Your task to perform on an android device: change the clock style Image 0: 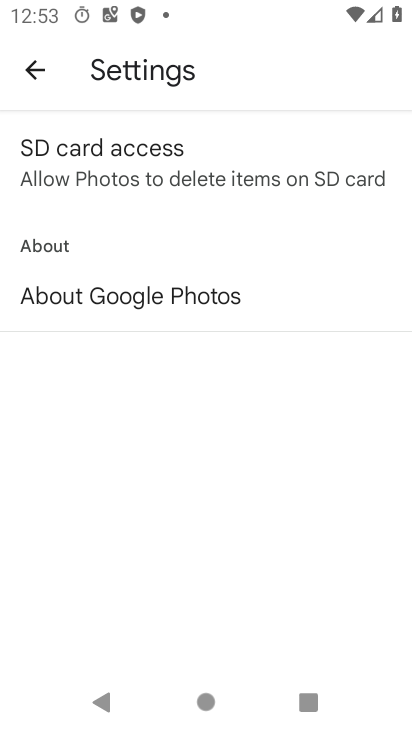
Step 0: press home button
Your task to perform on an android device: change the clock style Image 1: 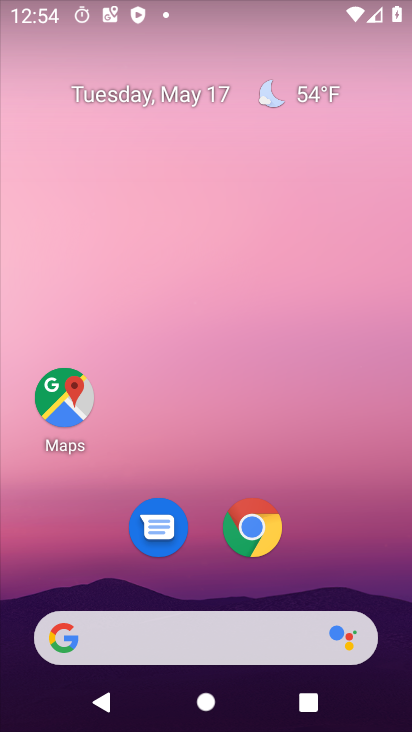
Step 1: drag from (239, 673) to (166, 147)
Your task to perform on an android device: change the clock style Image 2: 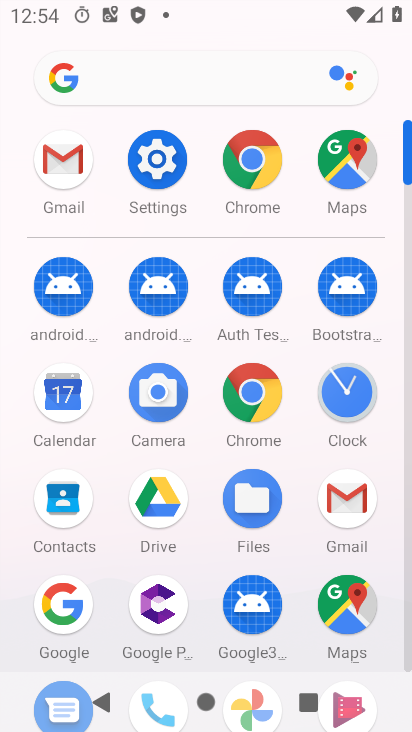
Step 2: click (151, 159)
Your task to perform on an android device: change the clock style Image 3: 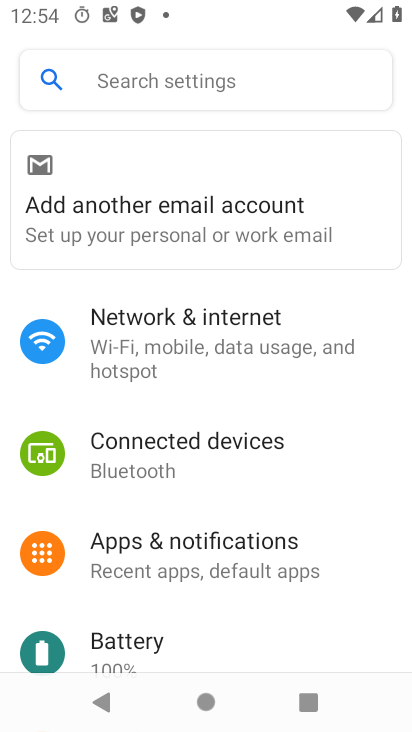
Step 3: press home button
Your task to perform on an android device: change the clock style Image 4: 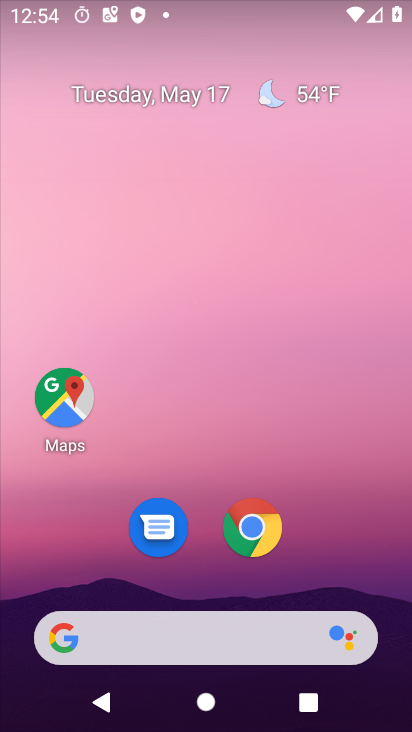
Step 4: drag from (317, 661) to (328, 191)
Your task to perform on an android device: change the clock style Image 5: 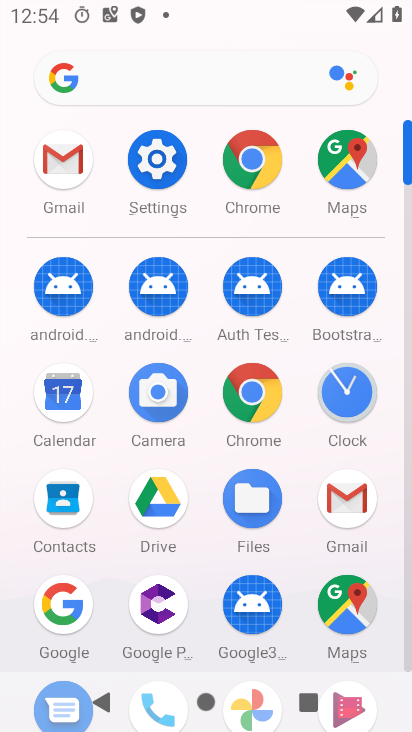
Step 5: click (361, 392)
Your task to perform on an android device: change the clock style Image 6: 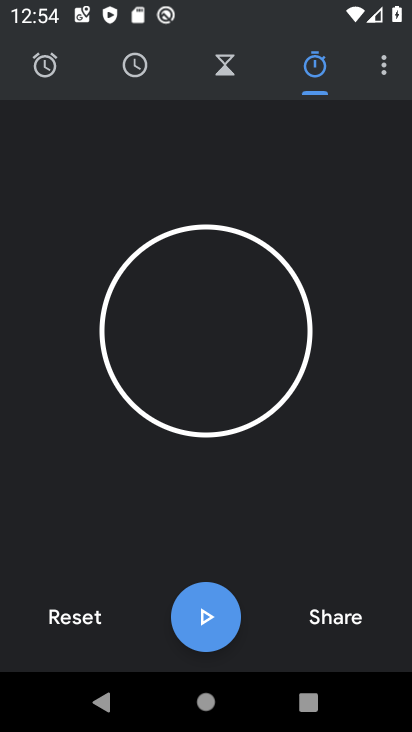
Step 6: click (382, 87)
Your task to perform on an android device: change the clock style Image 7: 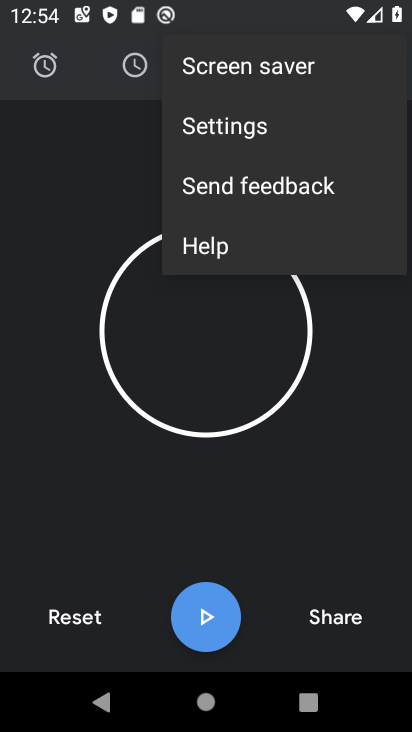
Step 7: click (250, 132)
Your task to perform on an android device: change the clock style Image 8: 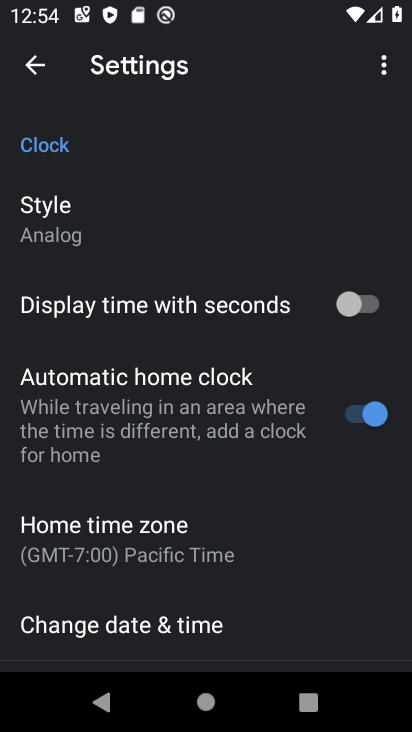
Step 8: click (167, 213)
Your task to perform on an android device: change the clock style Image 9: 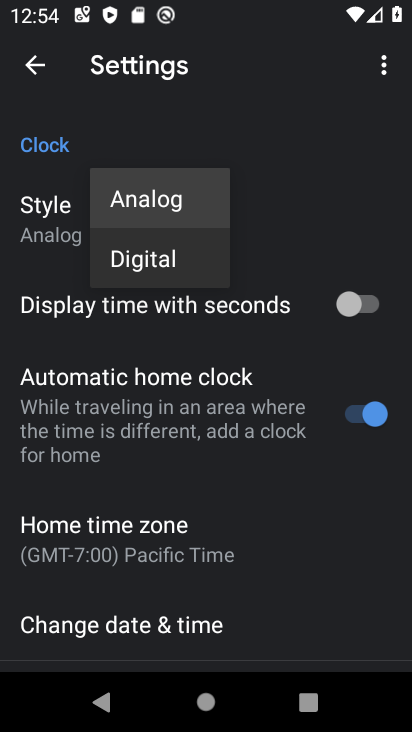
Step 9: click (140, 252)
Your task to perform on an android device: change the clock style Image 10: 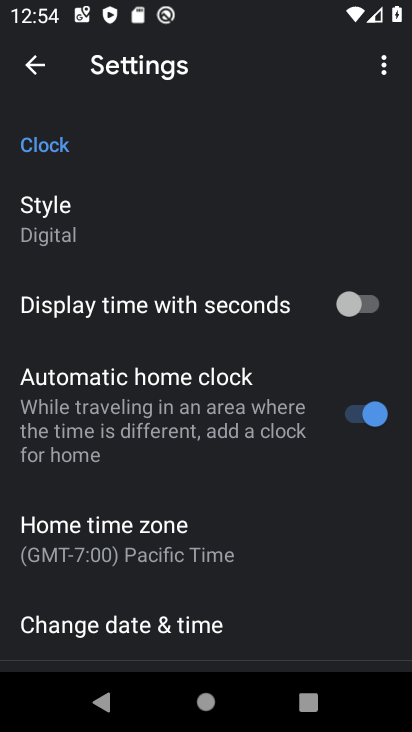
Step 10: task complete